Your task to perform on an android device: turn on notifications settings in the gmail app Image 0: 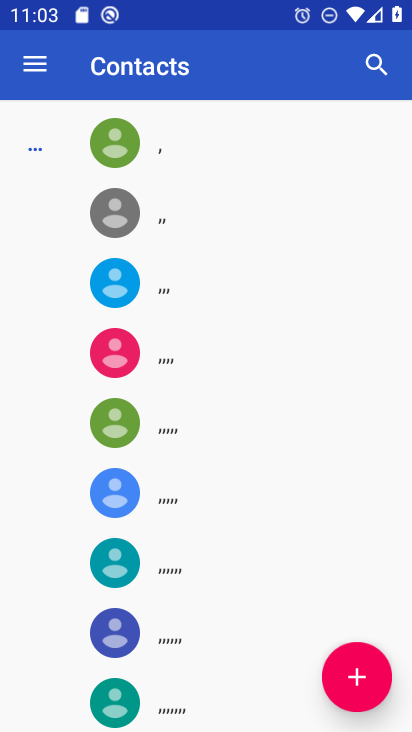
Step 0: press home button
Your task to perform on an android device: turn on notifications settings in the gmail app Image 1: 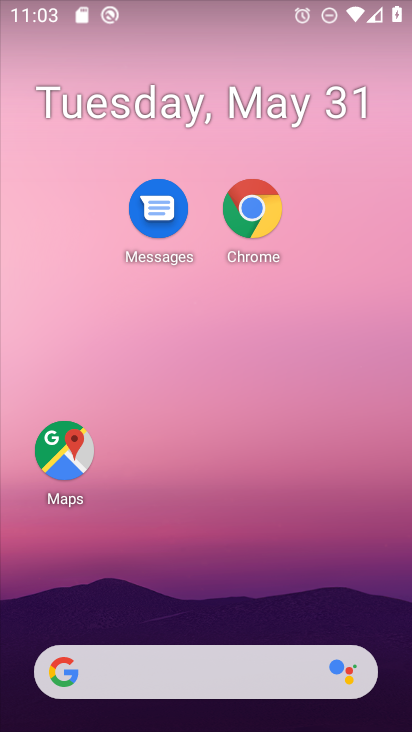
Step 1: drag from (221, 622) to (201, 83)
Your task to perform on an android device: turn on notifications settings in the gmail app Image 2: 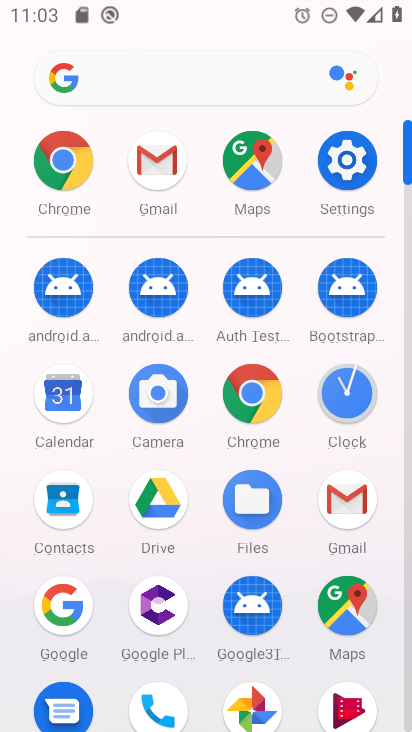
Step 2: click (343, 488)
Your task to perform on an android device: turn on notifications settings in the gmail app Image 3: 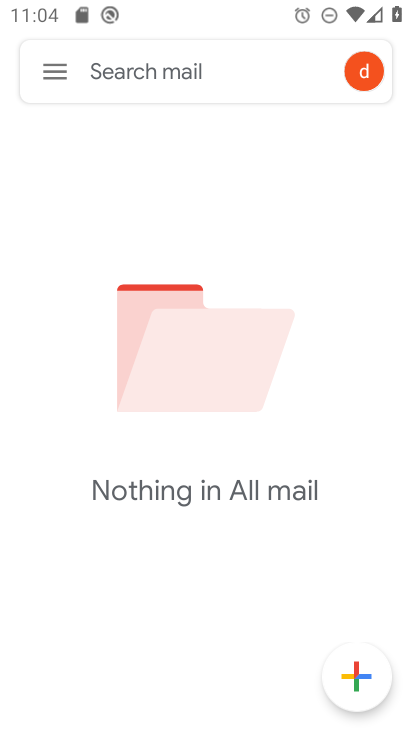
Step 3: click (54, 65)
Your task to perform on an android device: turn on notifications settings in the gmail app Image 4: 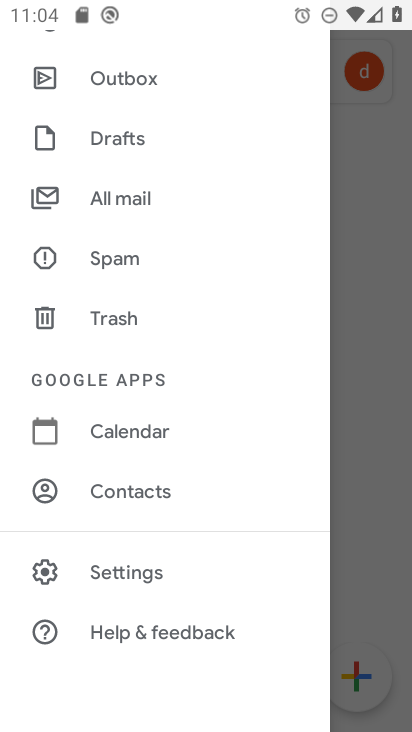
Step 4: click (172, 563)
Your task to perform on an android device: turn on notifications settings in the gmail app Image 5: 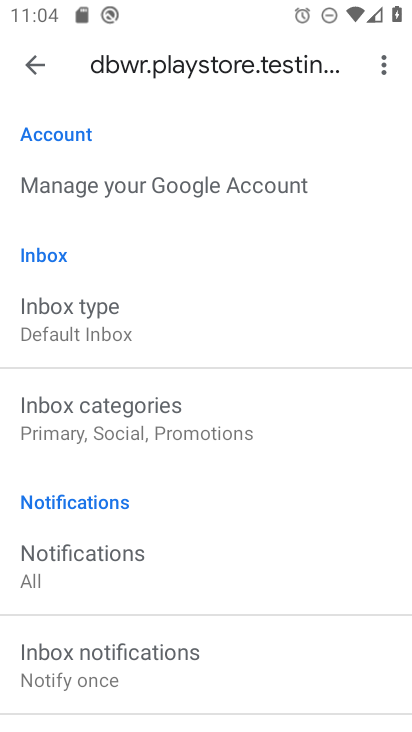
Step 5: click (40, 61)
Your task to perform on an android device: turn on notifications settings in the gmail app Image 6: 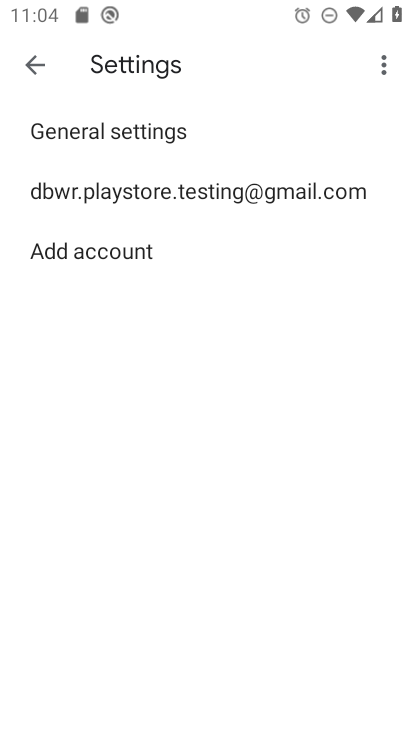
Step 6: click (192, 124)
Your task to perform on an android device: turn on notifications settings in the gmail app Image 7: 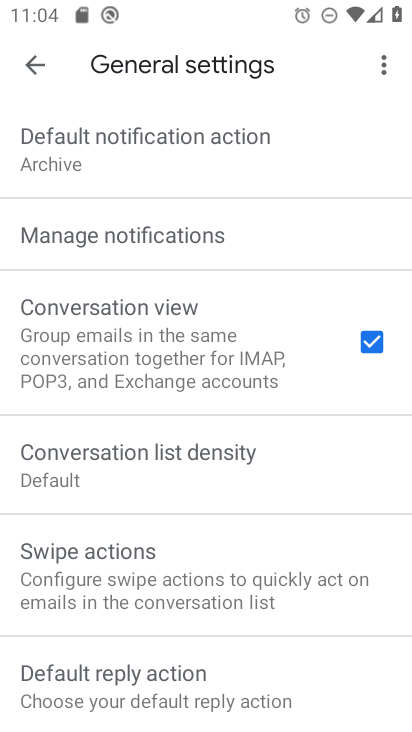
Step 7: click (201, 226)
Your task to perform on an android device: turn on notifications settings in the gmail app Image 8: 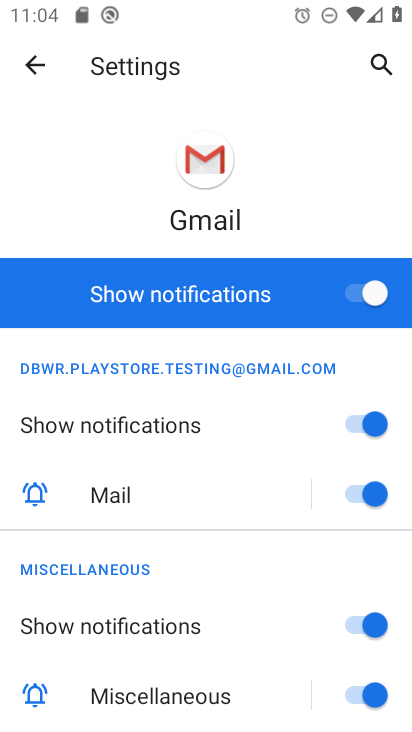
Step 8: task complete